Your task to perform on an android device: Open ESPN.com Image 0: 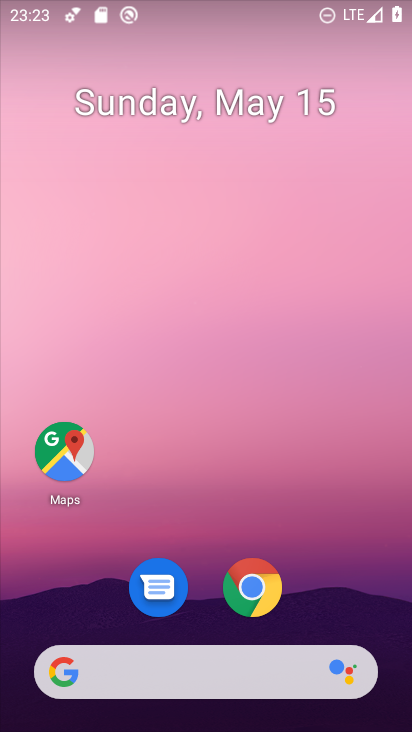
Step 0: click (273, 585)
Your task to perform on an android device: Open ESPN.com Image 1: 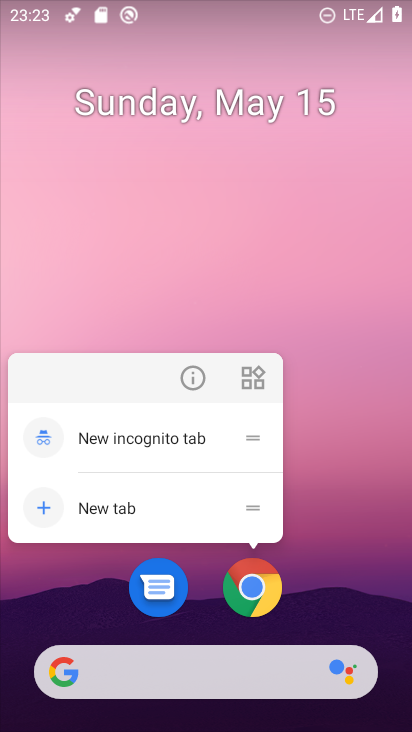
Step 1: click (251, 566)
Your task to perform on an android device: Open ESPN.com Image 2: 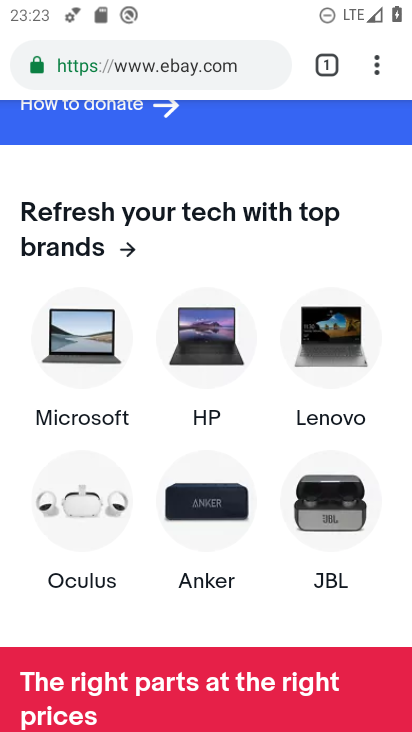
Step 2: click (331, 70)
Your task to perform on an android device: Open ESPN.com Image 3: 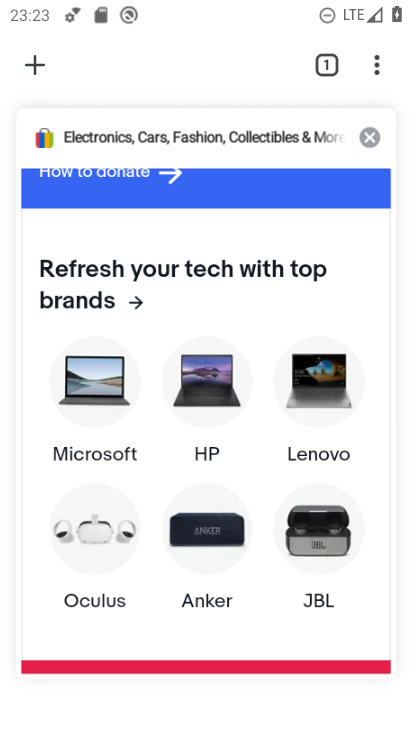
Step 3: click (33, 68)
Your task to perform on an android device: Open ESPN.com Image 4: 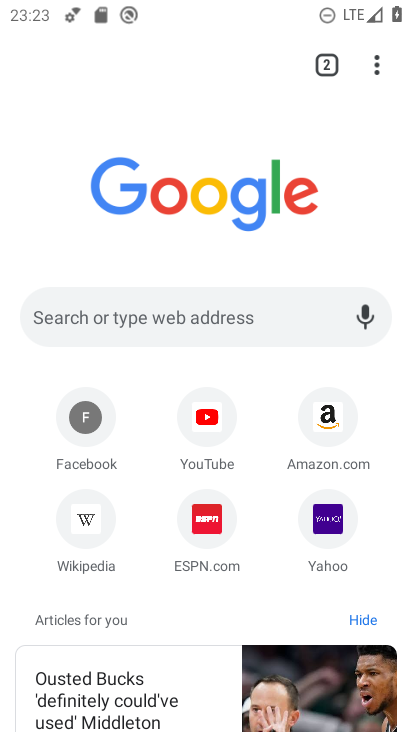
Step 4: click (142, 322)
Your task to perform on an android device: Open ESPN.com Image 5: 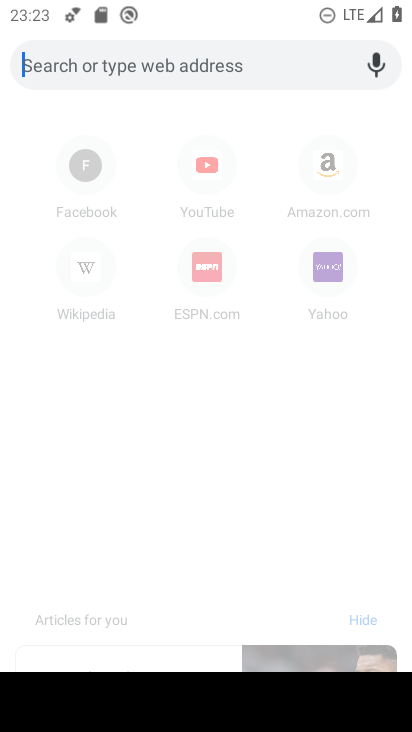
Step 5: click (200, 282)
Your task to perform on an android device: Open ESPN.com Image 6: 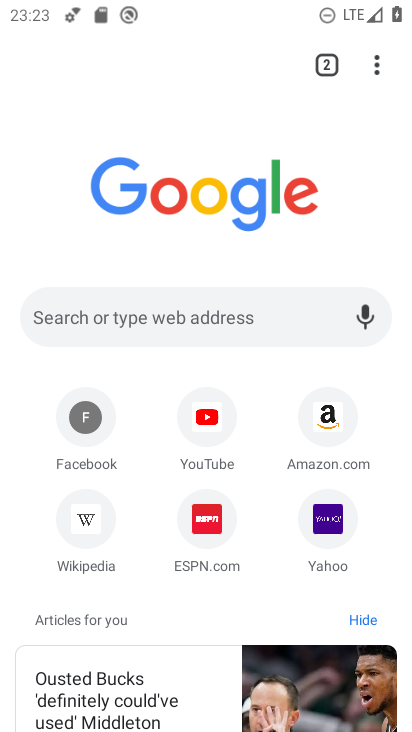
Step 6: click (205, 503)
Your task to perform on an android device: Open ESPN.com Image 7: 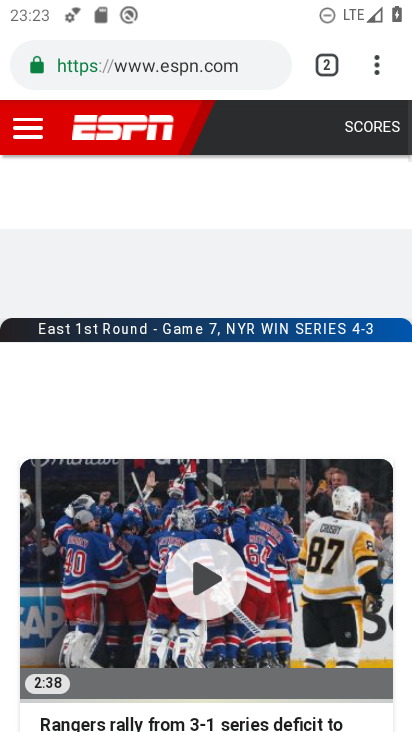
Step 7: task complete